Your task to perform on an android device: delete the emails in spam in the gmail app Image 0: 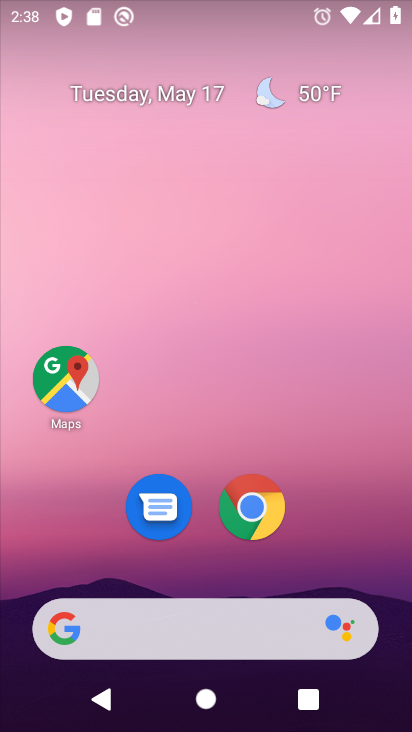
Step 0: drag from (345, 524) to (153, 35)
Your task to perform on an android device: delete the emails in spam in the gmail app Image 1: 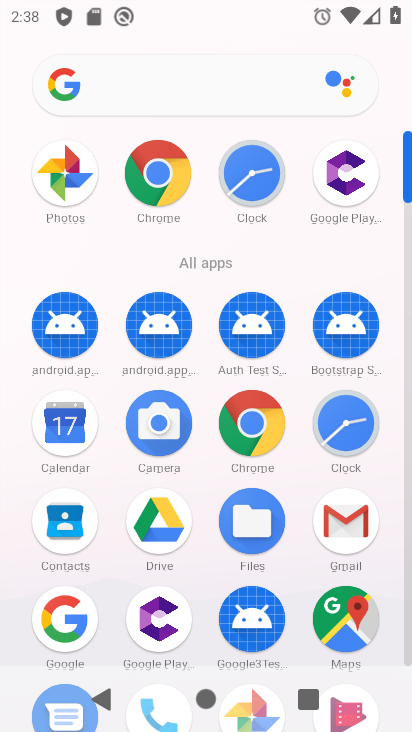
Step 1: click (346, 519)
Your task to perform on an android device: delete the emails in spam in the gmail app Image 2: 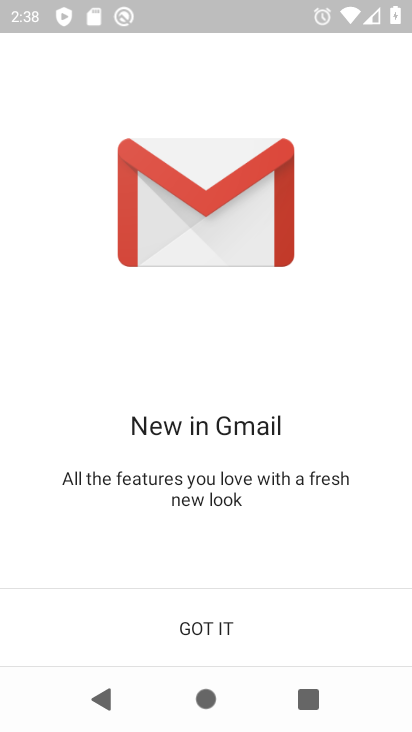
Step 2: click (214, 619)
Your task to perform on an android device: delete the emails in spam in the gmail app Image 3: 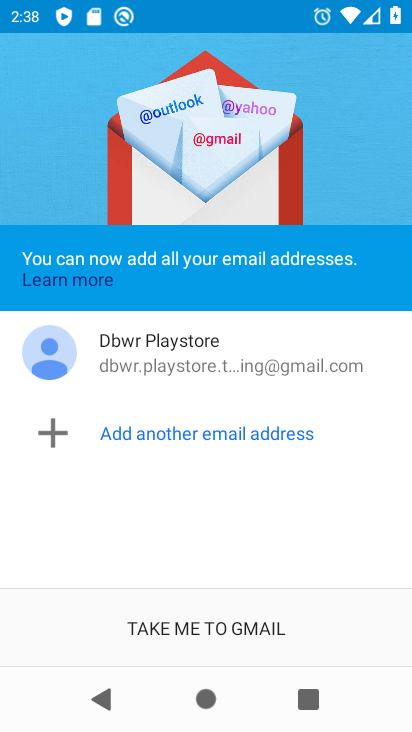
Step 3: click (238, 614)
Your task to perform on an android device: delete the emails in spam in the gmail app Image 4: 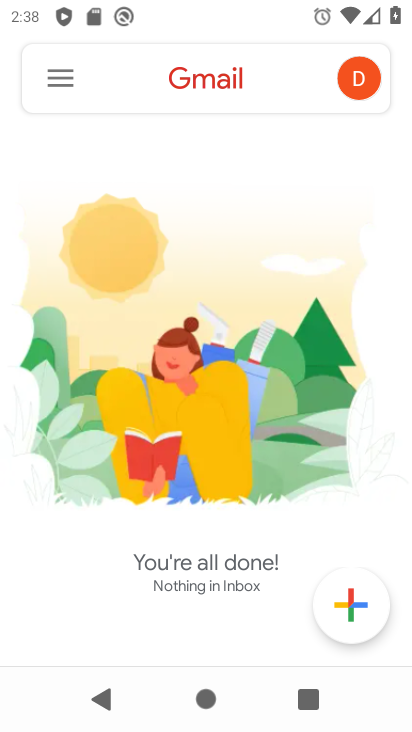
Step 4: click (62, 81)
Your task to perform on an android device: delete the emails in spam in the gmail app Image 5: 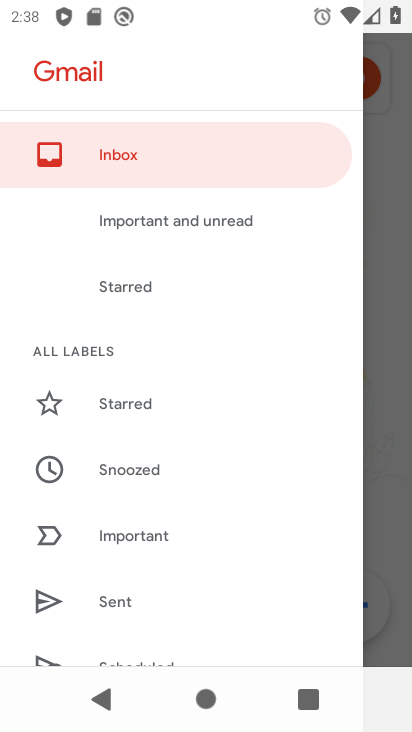
Step 5: drag from (203, 599) to (181, 208)
Your task to perform on an android device: delete the emails in spam in the gmail app Image 6: 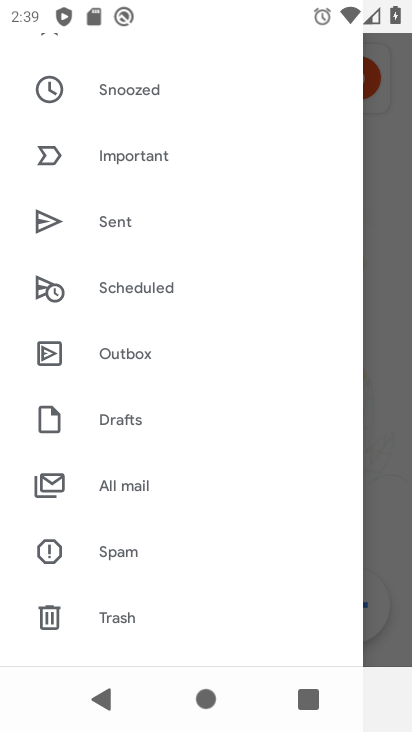
Step 6: drag from (171, 491) to (169, 373)
Your task to perform on an android device: delete the emails in spam in the gmail app Image 7: 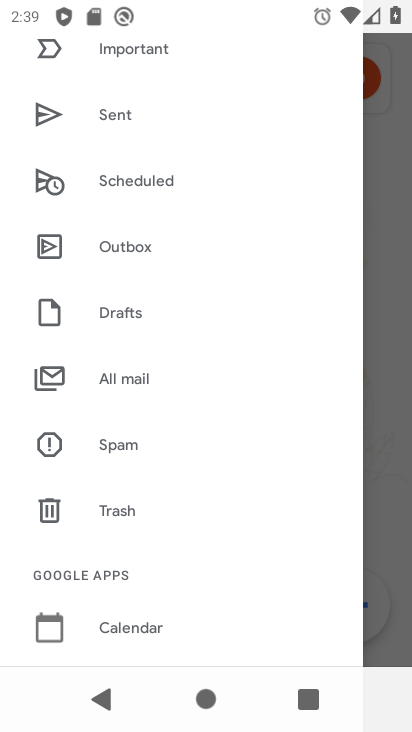
Step 7: click (130, 437)
Your task to perform on an android device: delete the emails in spam in the gmail app Image 8: 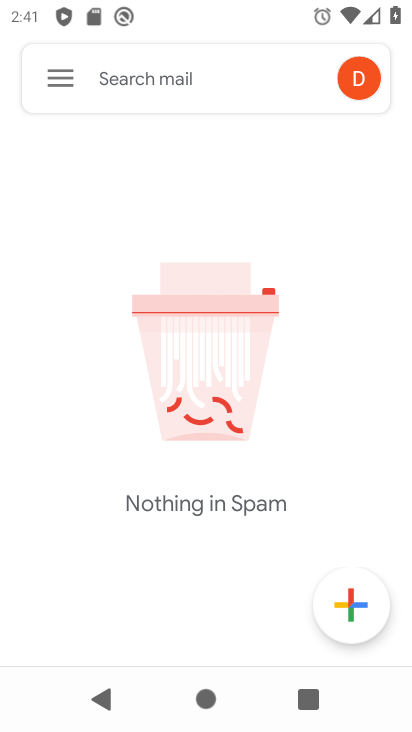
Step 8: task complete